Your task to perform on an android device: toggle wifi Image 0: 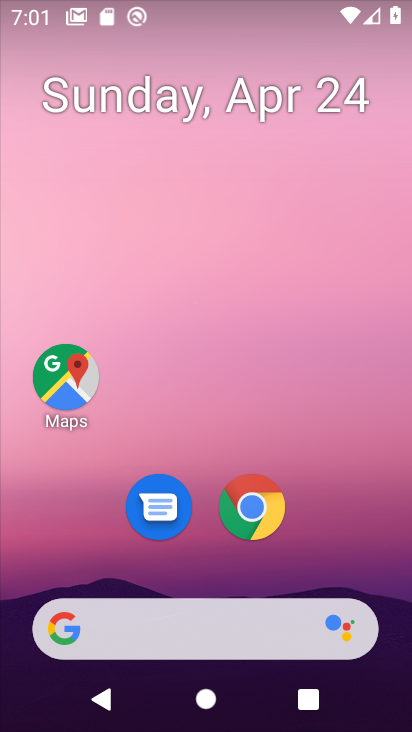
Step 0: drag from (323, 487) to (258, 6)
Your task to perform on an android device: toggle wifi Image 1: 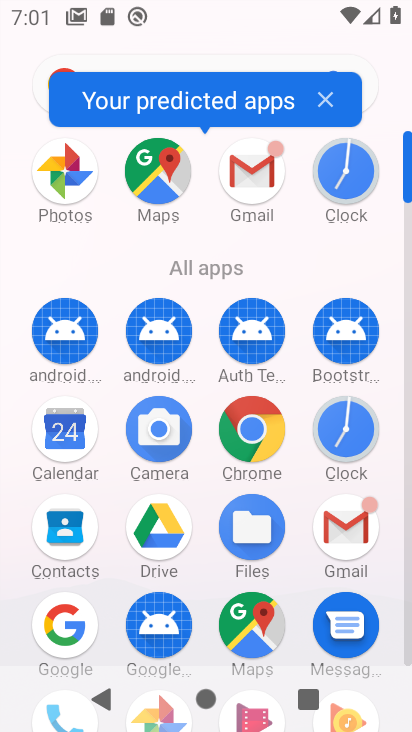
Step 1: drag from (387, 596) to (314, 285)
Your task to perform on an android device: toggle wifi Image 2: 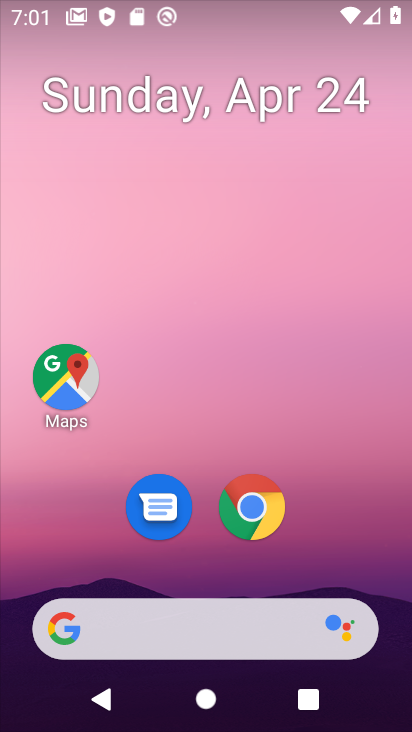
Step 2: drag from (359, 513) to (261, 81)
Your task to perform on an android device: toggle wifi Image 3: 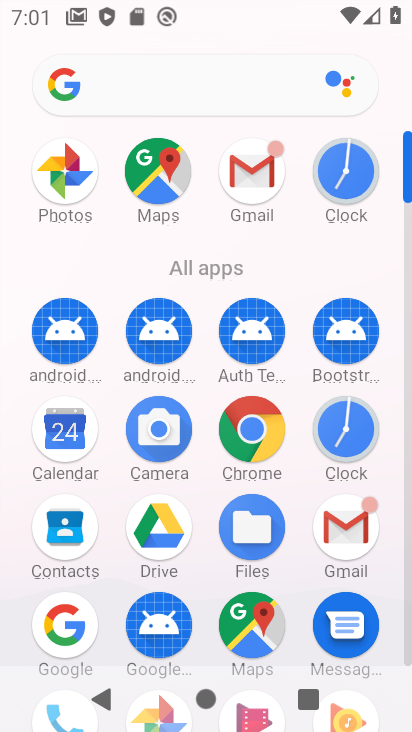
Step 3: drag from (391, 637) to (381, 260)
Your task to perform on an android device: toggle wifi Image 4: 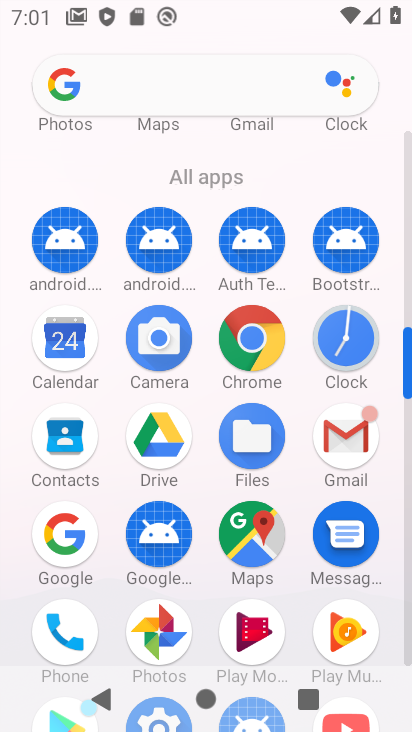
Step 4: drag from (390, 525) to (404, 253)
Your task to perform on an android device: toggle wifi Image 5: 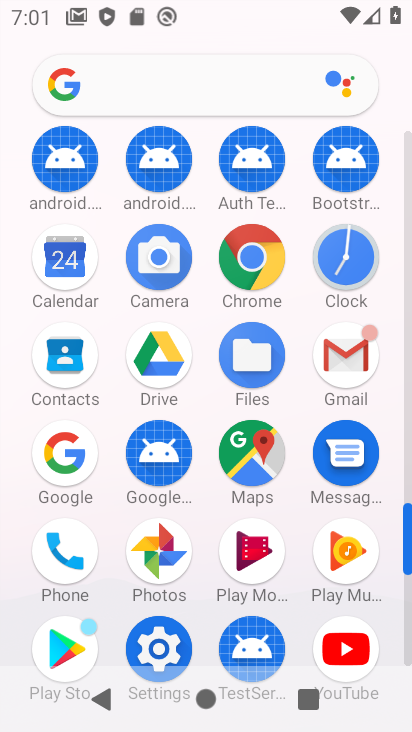
Step 5: click (143, 663)
Your task to perform on an android device: toggle wifi Image 6: 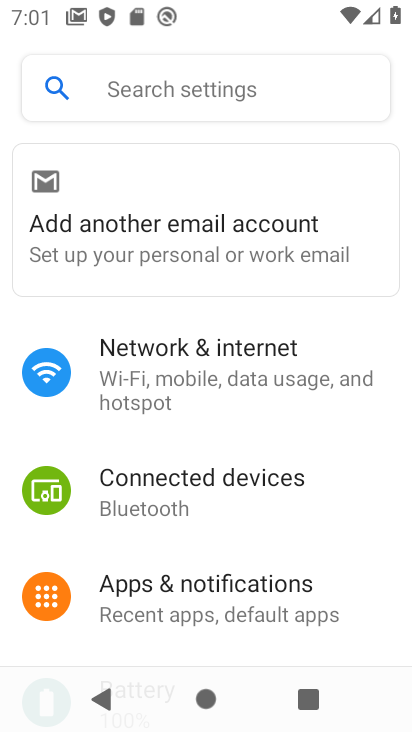
Step 6: click (185, 387)
Your task to perform on an android device: toggle wifi Image 7: 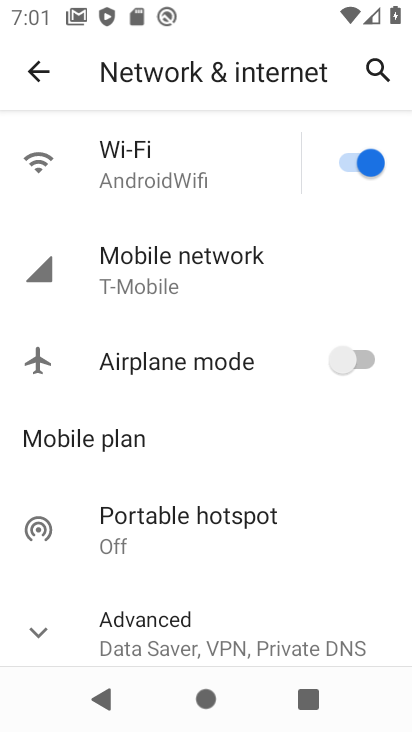
Step 7: click (345, 159)
Your task to perform on an android device: toggle wifi Image 8: 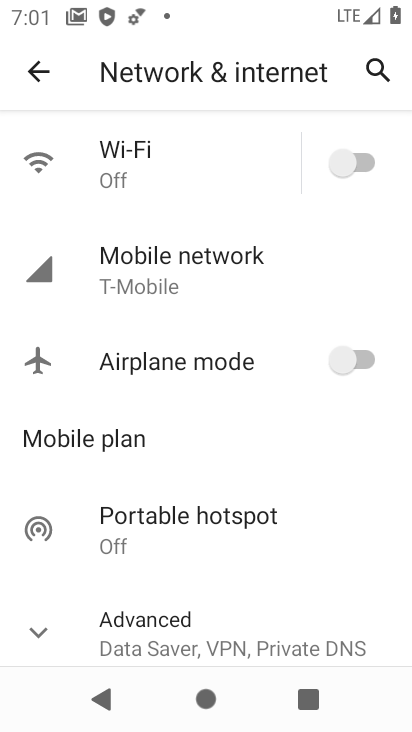
Step 8: task complete